Your task to perform on an android device: change keyboard looks Image 0: 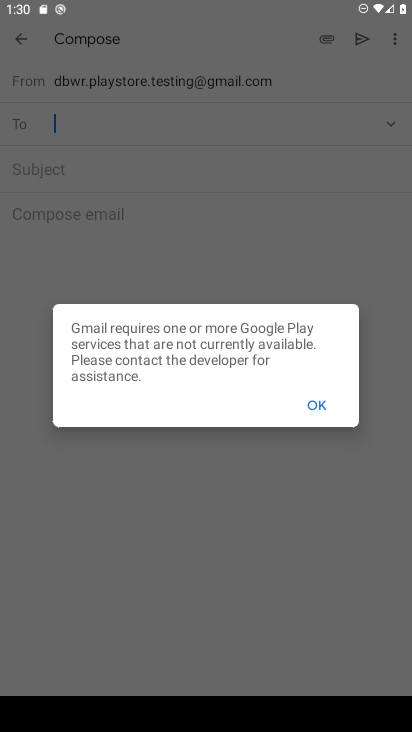
Step 0: press home button
Your task to perform on an android device: change keyboard looks Image 1: 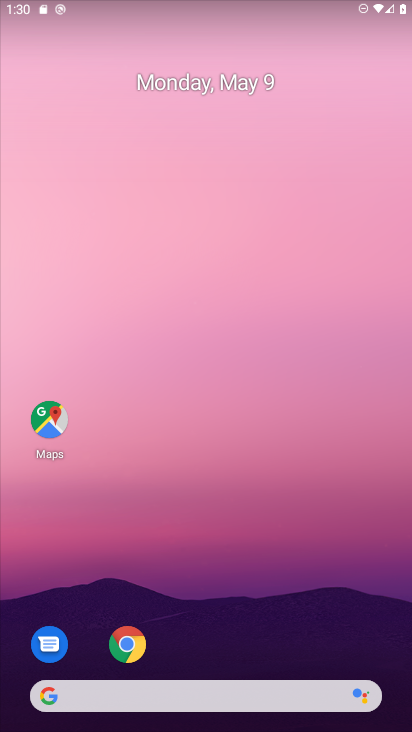
Step 1: drag from (254, 613) to (238, 184)
Your task to perform on an android device: change keyboard looks Image 2: 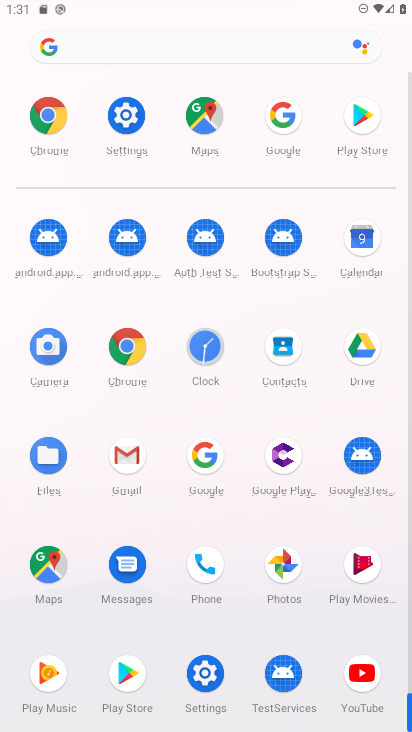
Step 2: click (198, 674)
Your task to perform on an android device: change keyboard looks Image 3: 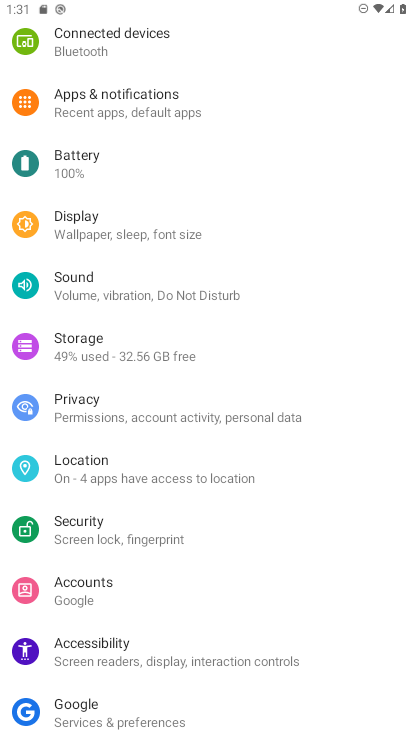
Step 3: drag from (120, 248) to (166, 722)
Your task to perform on an android device: change keyboard looks Image 4: 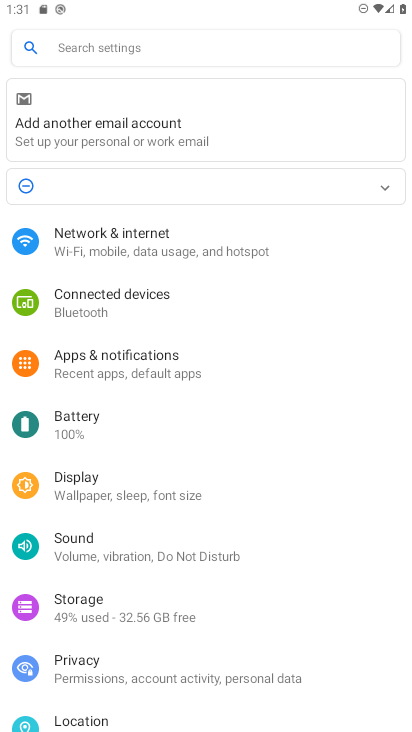
Step 4: drag from (195, 582) to (54, 84)
Your task to perform on an android device: change keyboard looks Image 5: 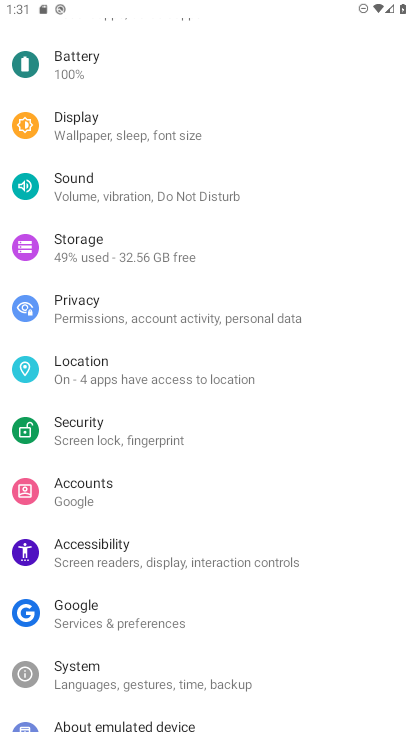
Step 5: drag from (156, 581) to (145, 140)
Your task to perform on an android device: change keyboard looks Image 6: 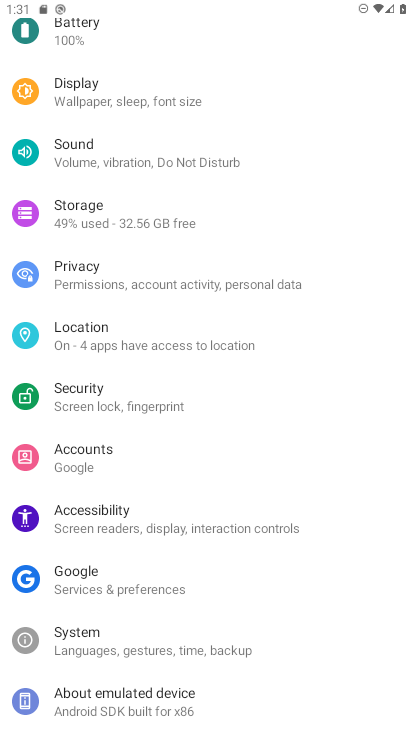
Step 6: click (105, 649)
Your task to perform on an android device: change keyboard looks Image 7: 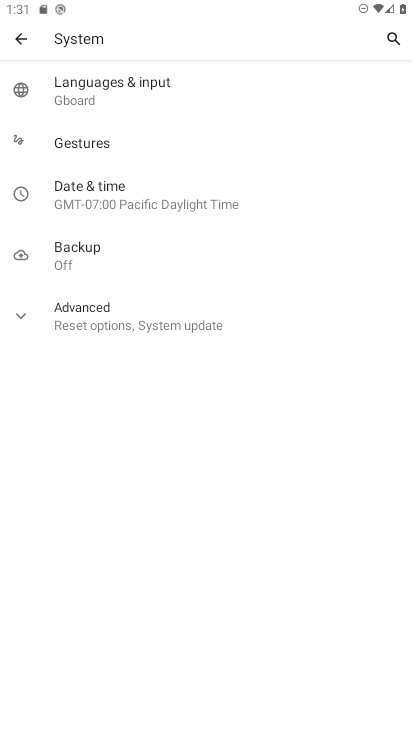
Step 7: click (85, 93)
Your task to perform on an android device: change keyboard looks Image 8: 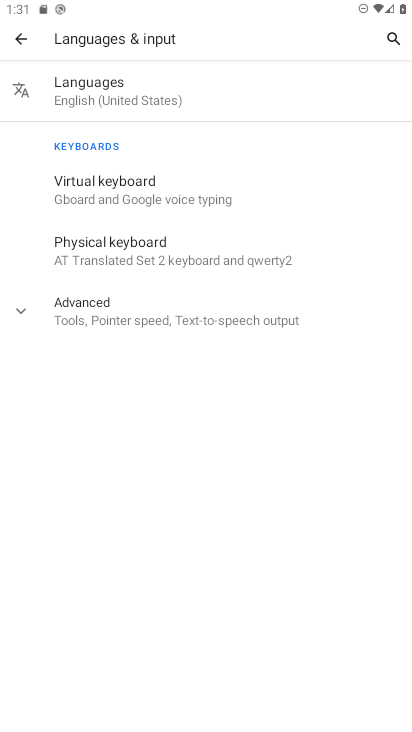
Step 8: click (89, 198)
Your task to perform on an android device: change keyboard looks Image 9: 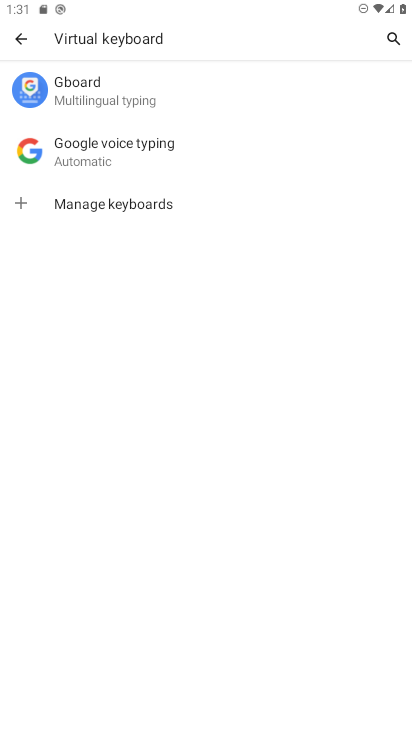
Step 9: click (45, 93)
Your task to perform on an android device: change keyboard looks Image 10: 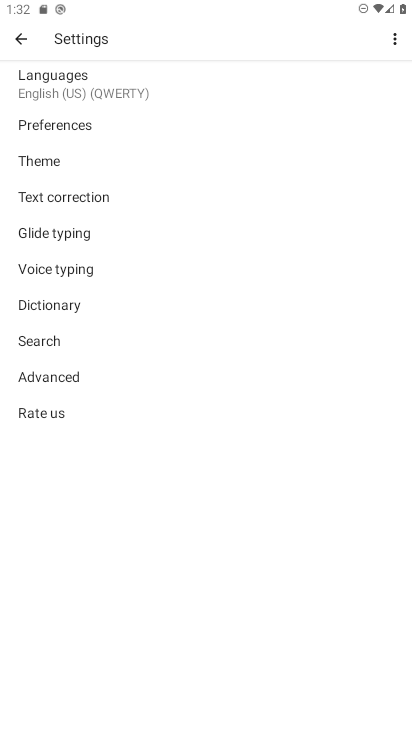
Step 10: click (36, 167)
Your task to perform on an android device: change keyboard looks Image 11: 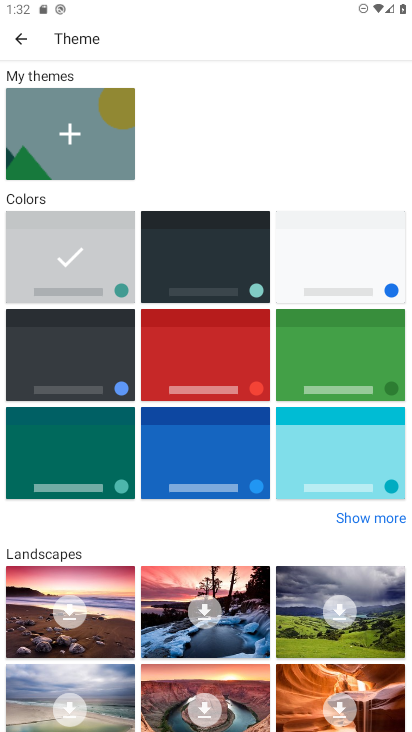
Step 11: click (224, 288)
Your task to perform on an android device: change keyboard looks Image 12: 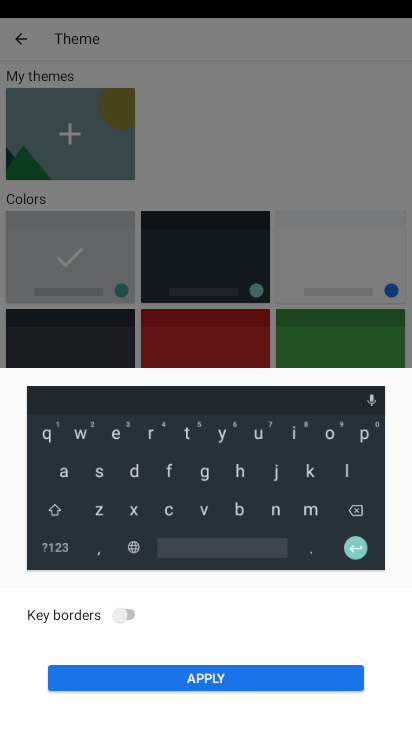
Step 12: click (230, 684)
Your task to perform on an android device: change keyboard looks Image 13: 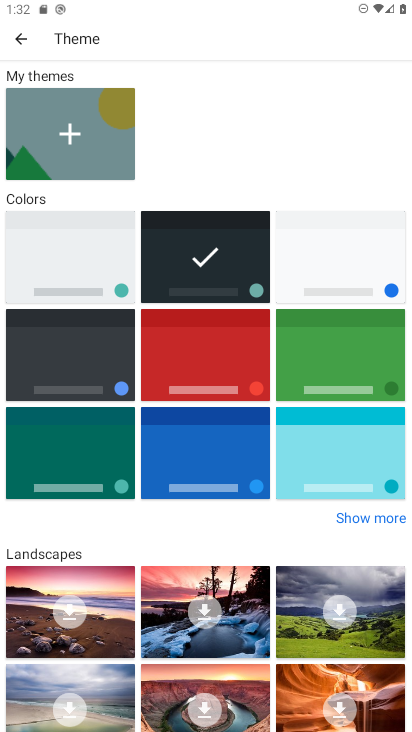
Step 13: task complete